Your task to perform on an android device: Open Wikipedia Image 0: 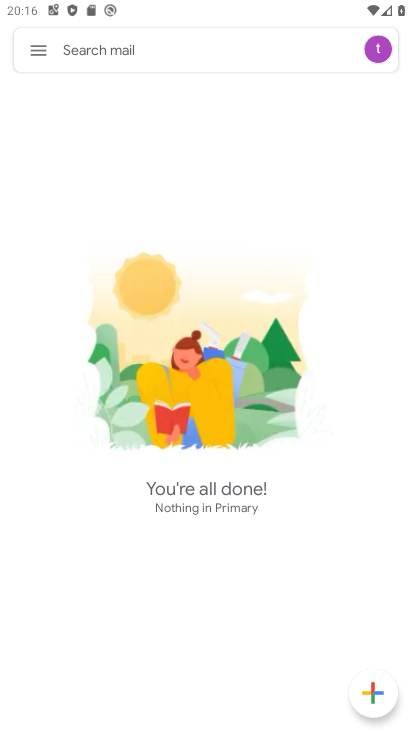
Step 0: press home button
Your task to perform on an android device: Open Wikipedia Image 1: 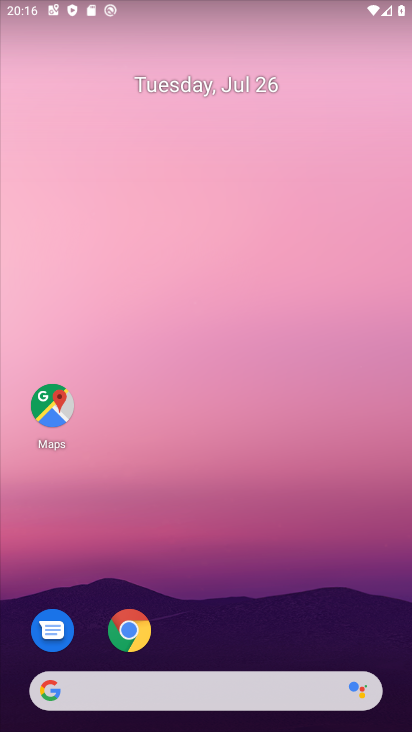
Step 1: drag from (325, 607) to (305, 127)
Your task to perform on an android device: Open Wikipedia Image 2: 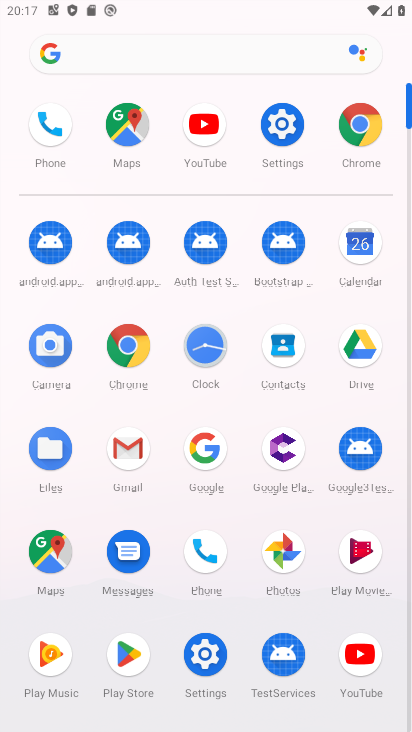
Step 2: click (128, 351)
Your task to perform on an android device: Open Wikipedia Image 3: 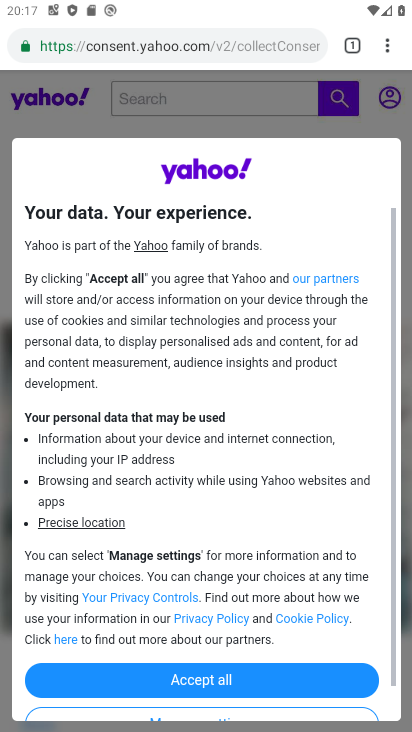
Step 3: click (214, 46)
Your task to perform on an android device: Open Wikipedia Image 4: 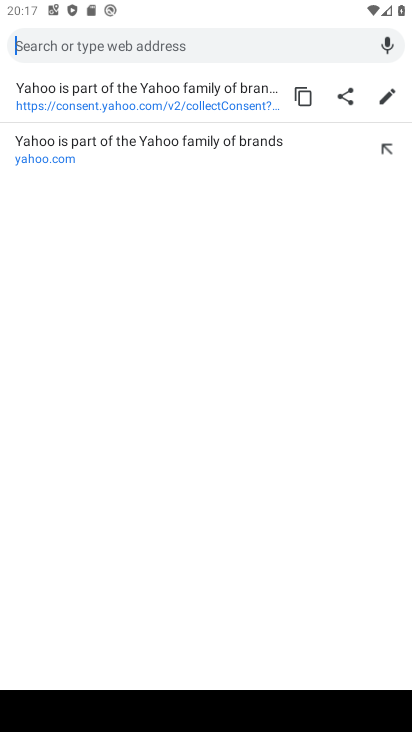
Step 4: type "wikipedia"
Your task to perform on an android device: Open Wikipedia Image 5: 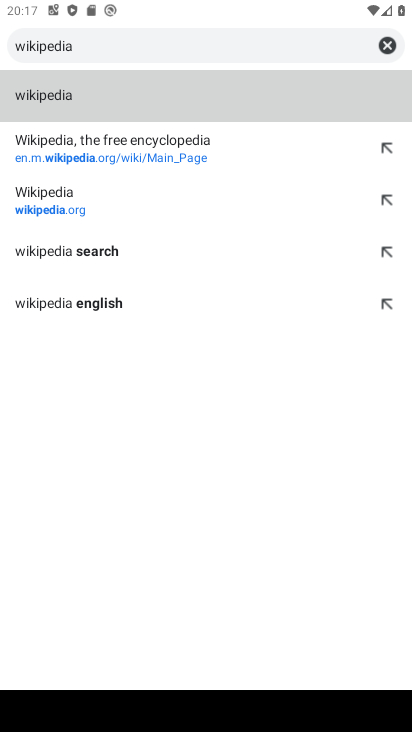
Step 5: click (233, 104)
Your task to perform on an android device: Open Wikipedia Image 6: 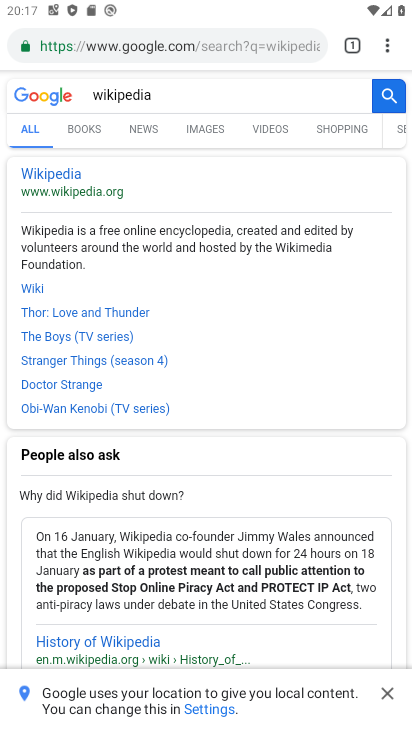
Step 6: task complete